Your task to perform on an android device: Open display settings Image 0: 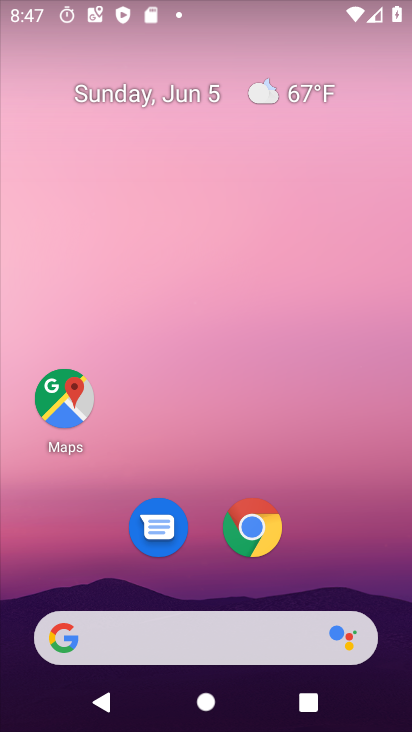
Step 0: drag from (249, 725) to (270, 4)
Your task to perform on an android device: Open display settings Image 1: 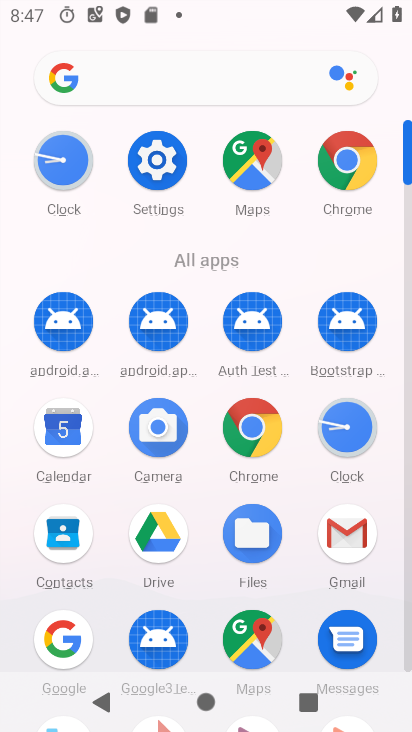
Step 1: click (157, 163)
Your task to perform on an android device: Open display settings Image 2: 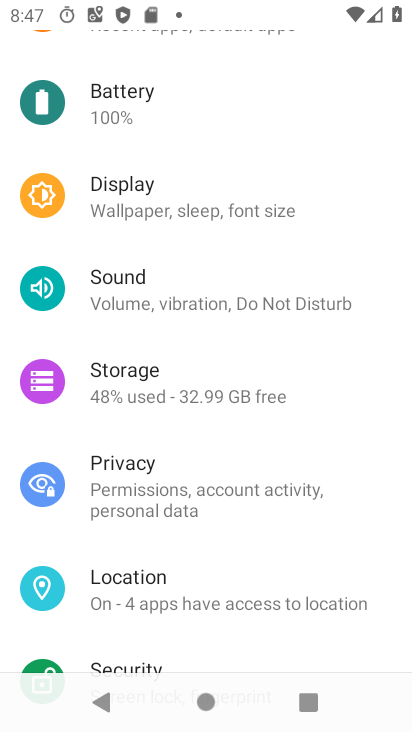
Step 2: click (141, 199)
Your task to perform on an android device: Open display settings Image 3: 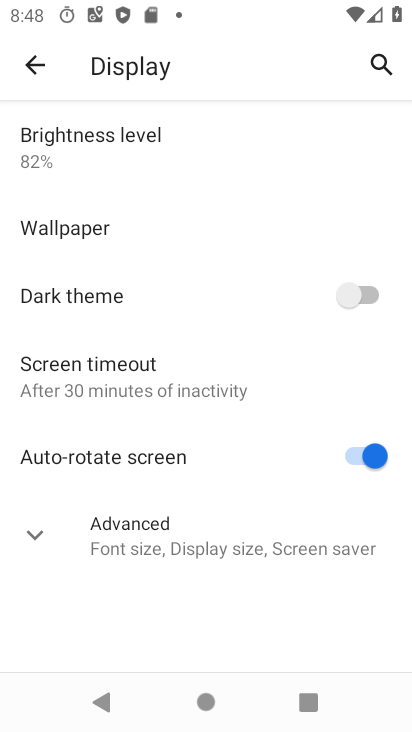
Step 3: task complete